Your task to perform on an android device: Open Google Maps and go to "Timeline" Image 0: 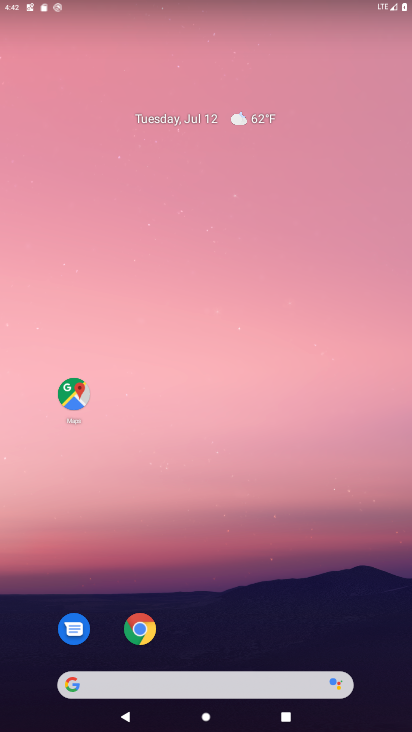
Step 0: drag from (267, 549) to (216, 190)
Your task to perform on an android device: Open Google Maps and go to "Timeline" Image 1: 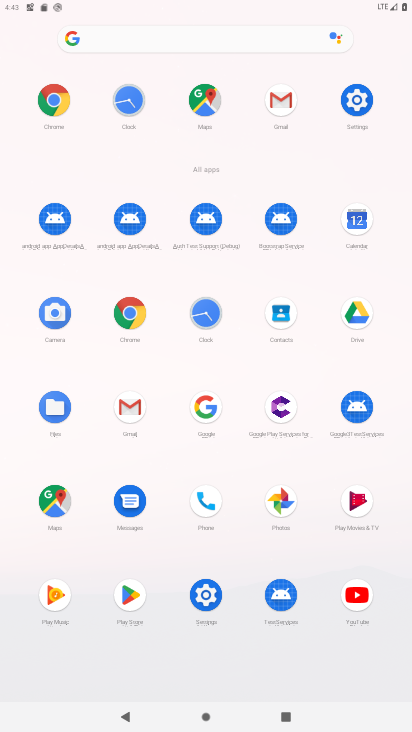
Step 1: click (205, 104)
Your task to perform on an android device: Open Google Maps and go to "Timeline" Image 2: 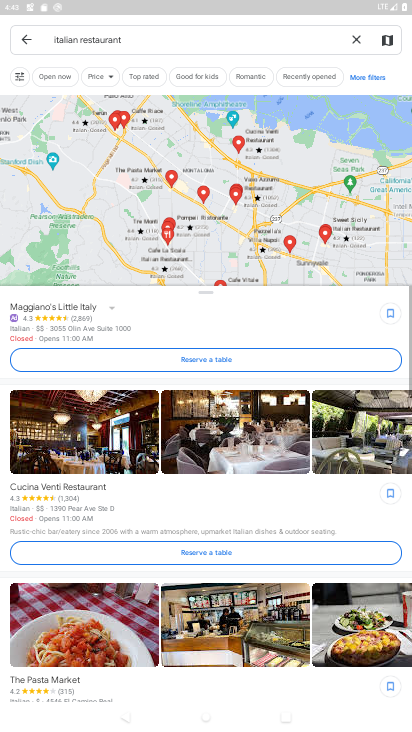
Step 2: click (26, 46)
Your task to perform on an android device: Open Google Maps and go to "Timeline" Image 3: 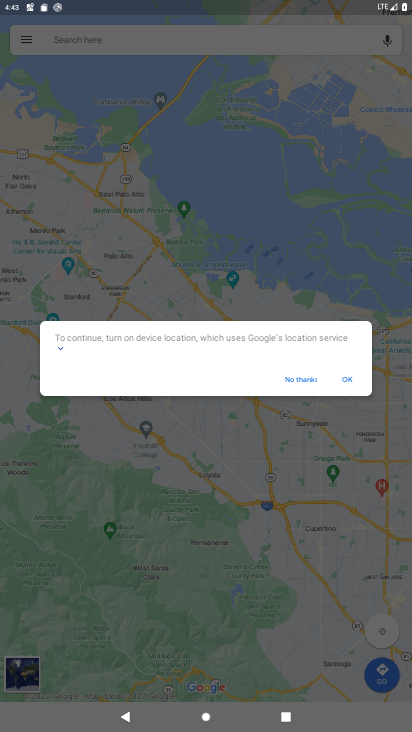
Step 3: click (341, 387)
Your task to perform on an android device: Open Google Maps and go to "Timeline" Image 4: 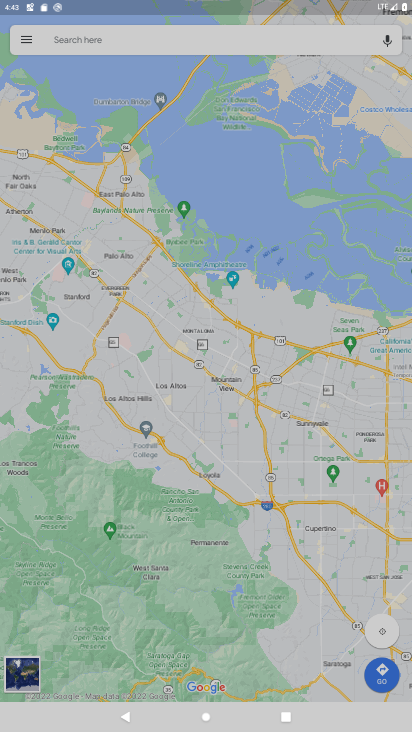
Step 4: click (295, 386)
Your task to perform on an android device: Open Google Maps and go to "Timeline" Image 5: 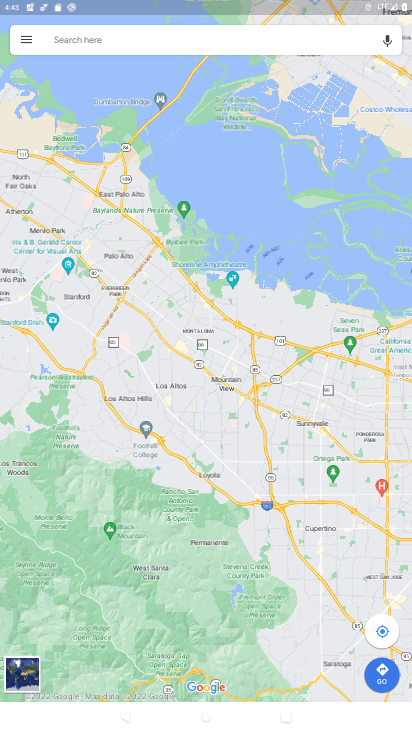
Step 5: click (33, 42)
Your task to perform on an android device: Open Google Maps and go to "Timeline" Image 6: 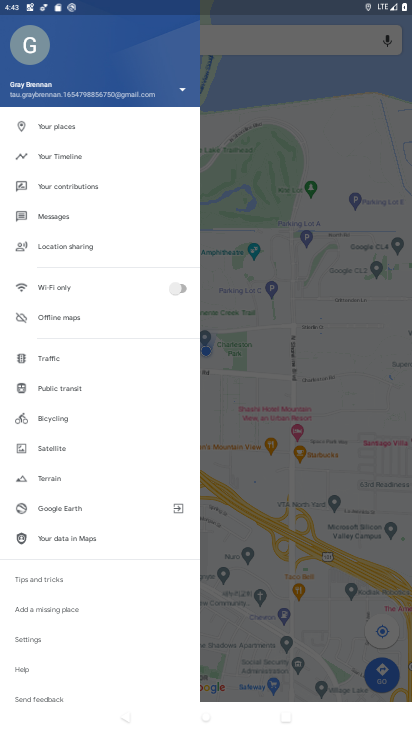
Step 6: click (76, 149)
Your task to perform on an android device: Open Google Maps and go to "Timeline" Image 7: 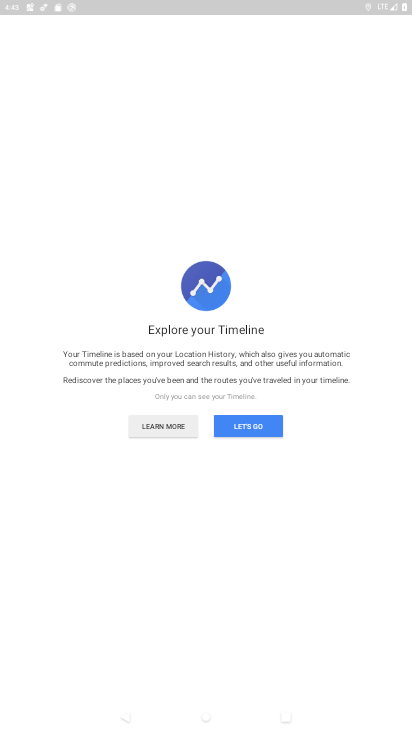
Step 7: click (260, 414)
Your task to perform on an android device: Open Google Maps and go to "Timeline" Image 8: 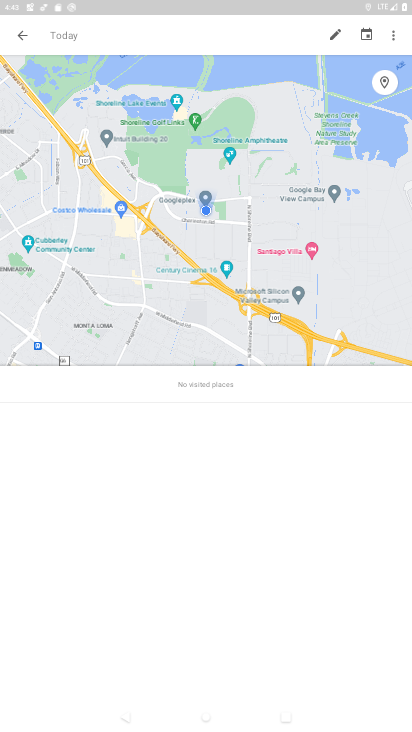
Step 8: task complete